Your task to perform on an android device: set the stopwatch Image 0: 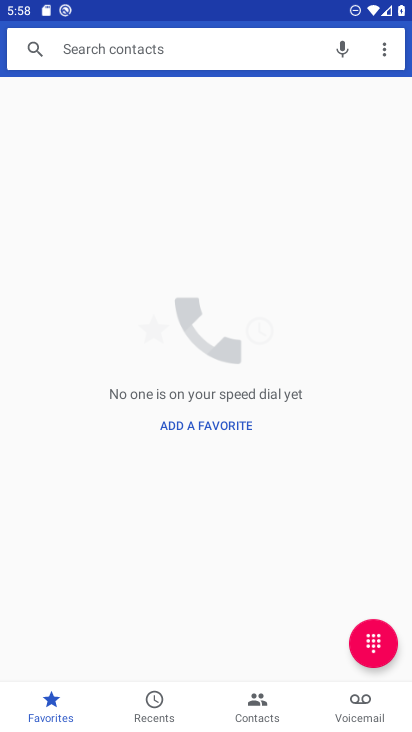
Step 0: press home button
Your task to perform on an android device: set the stopwatch Image 1: 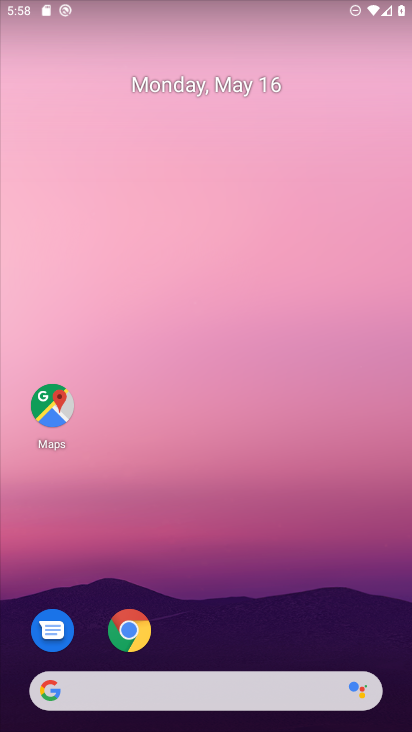
Step 1: click (279, 528)
Your task to perform on an android device: set the stopwatch Image 2: 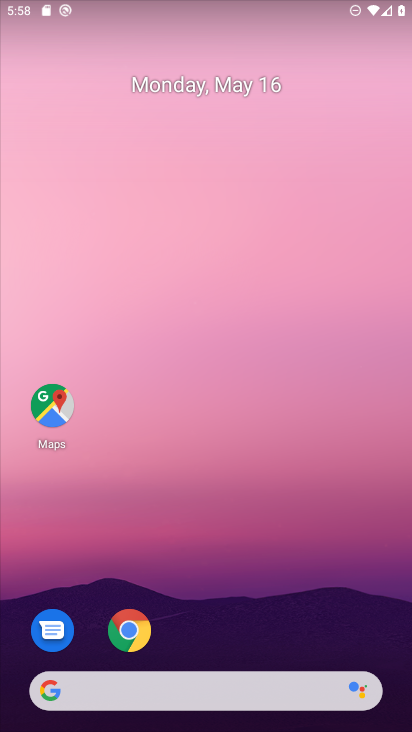
Step 2: drag from (288, 460) to (343, 87)
Your task to perform on an android device: set the stopwatch Image 3: 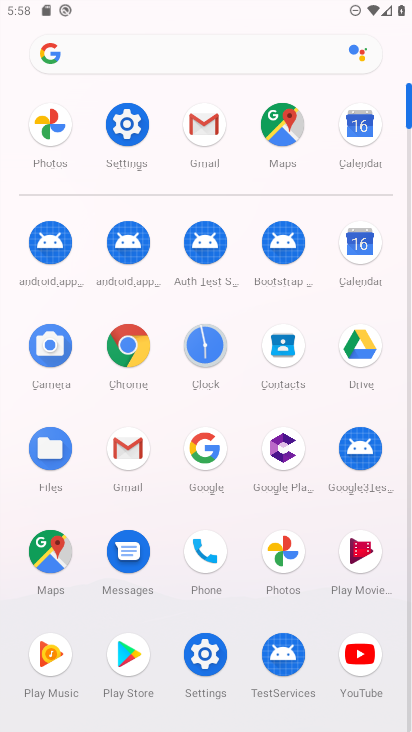
Step 3: click (193, 362)
Your task to perform on an android device: set the stopwatch Image 4: 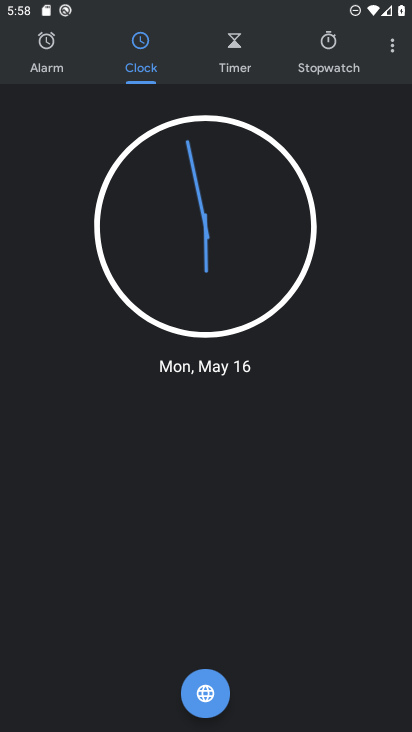
Step 4: click (295, 47)
Your task to perform on an android device: set the stopwatch Image 5: 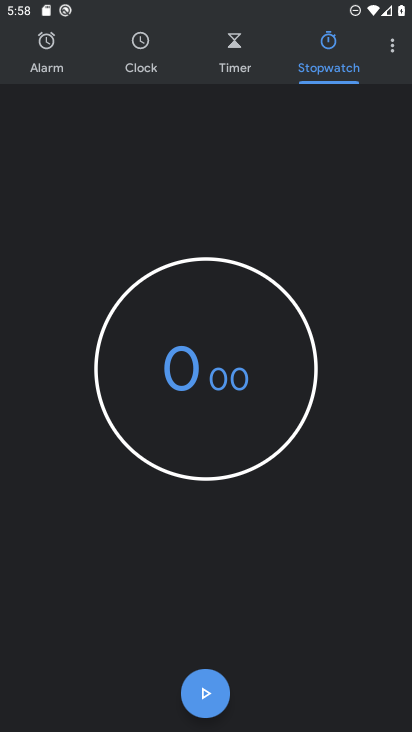
Step 5: click (227, 709)
Your task to perform on an android device: set the stopwatch Image 6: 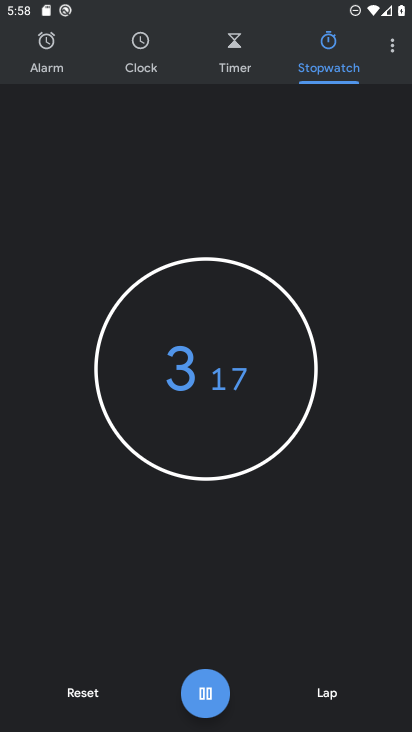
Step 6: task complete